Your task to perform on an android device: Search for Italian restaurants on Maps Image 0: 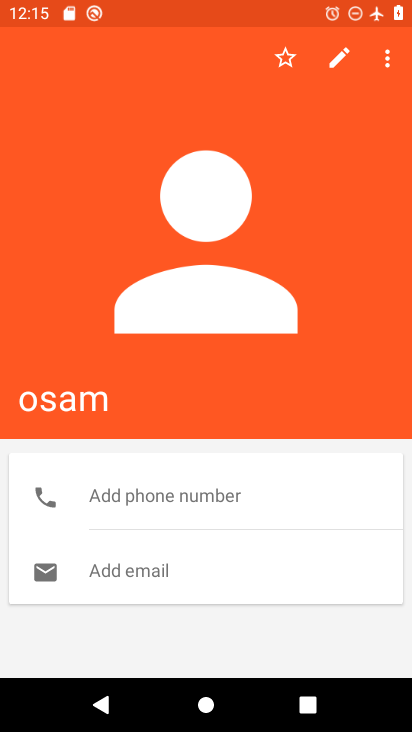
Step 0: press home button
Your task to perform on an android device: Search for Italian restaurants on Maps Image 1: 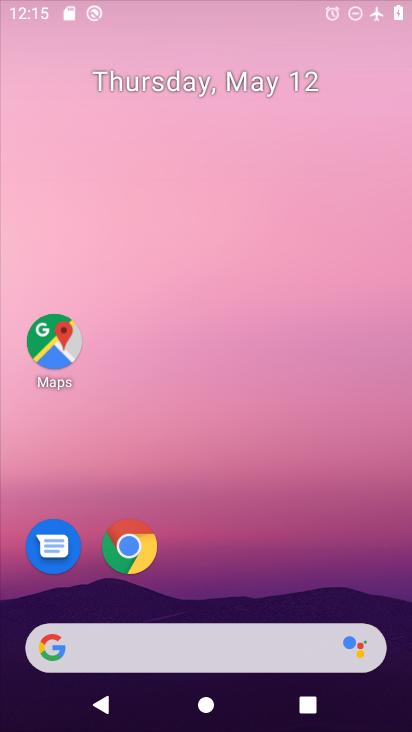
Step 1: drag from (393, 611) to (301, 86)
Your task to perform on an android device: Search for Italian restaurants on Maps Image 2: 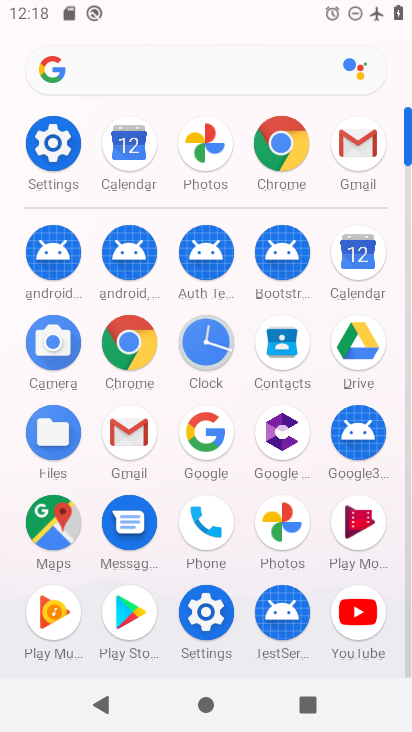
Step 2: click (47, 531)
Your task to perform on an android device: Search for Italian restaurants on Maps Image 3: 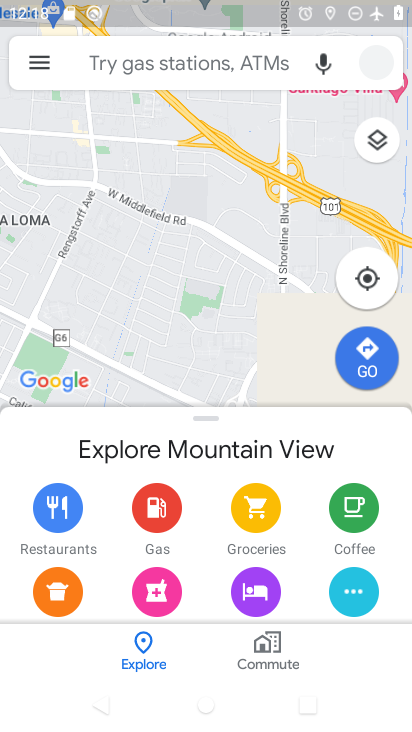
Step 3: click (121, 60)
Your task to perform on an android device: Search for Italian restaurants on Maps Image 4: 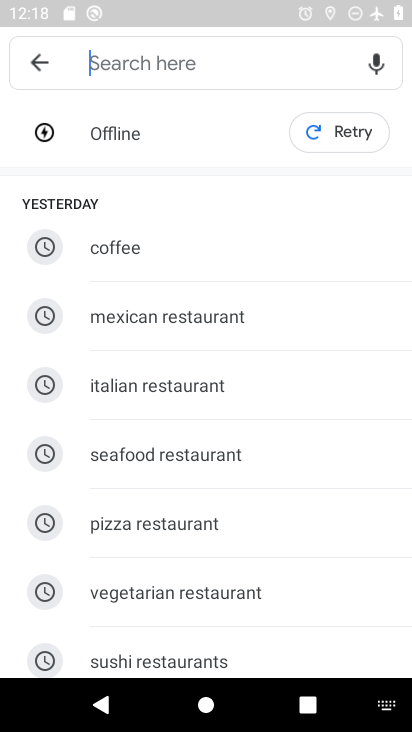
Step 4: click (166, 406)
Your task to perform on an android device: Search for Italian restaurants on Maps Image 5: 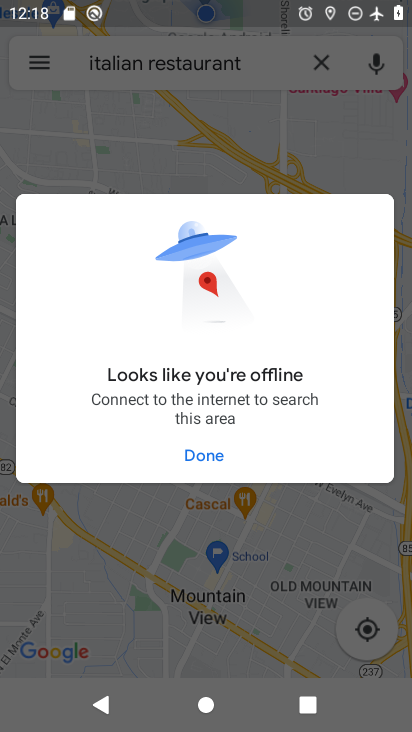
Step 5: task complete